Your task to perform on an android device: turn on the 24-hour format for clock Image 0: 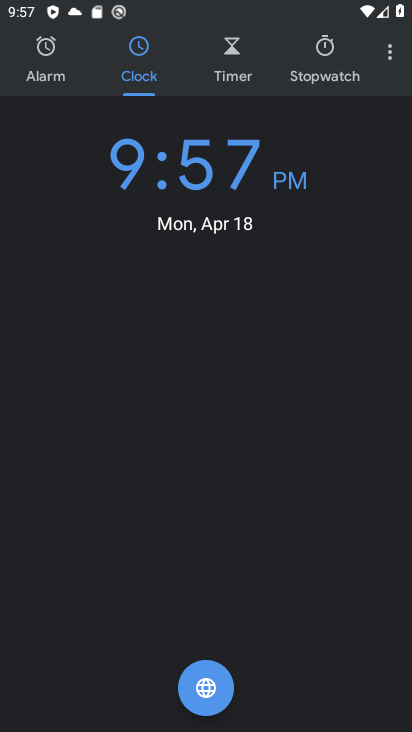
Step 0: click (390, 63)
Your task to perform on an android device: turn on the 24-hour format for clock Image 1: 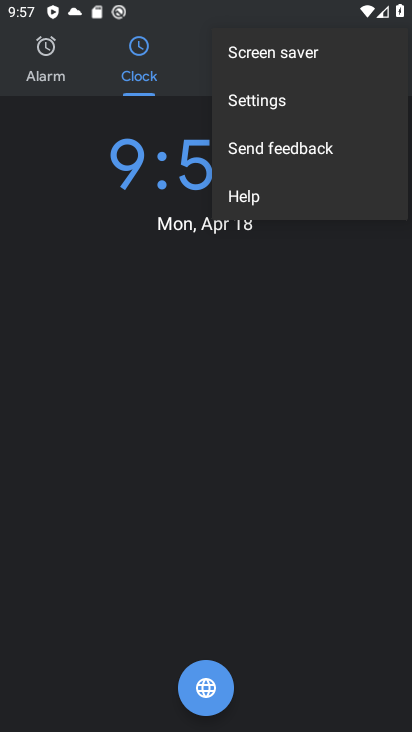
Step 1: click (265, 112)
Your task to perform on an android device: turn on the 24-hour format for clock Image 2: 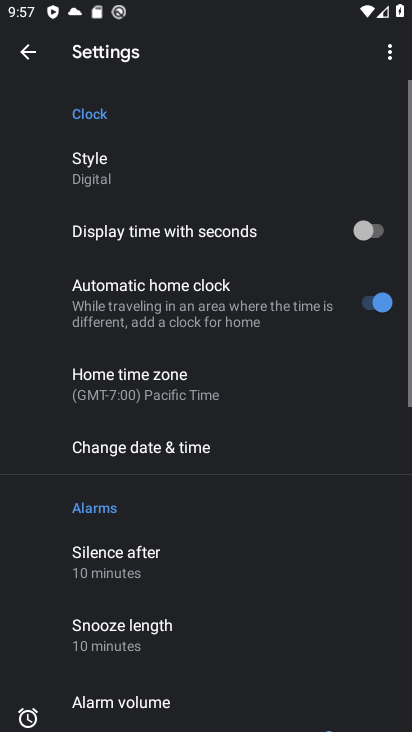
Step 2: click (174, 460)
Your task to perform on an android device: turn on the 24-hour format for clock Image 3: 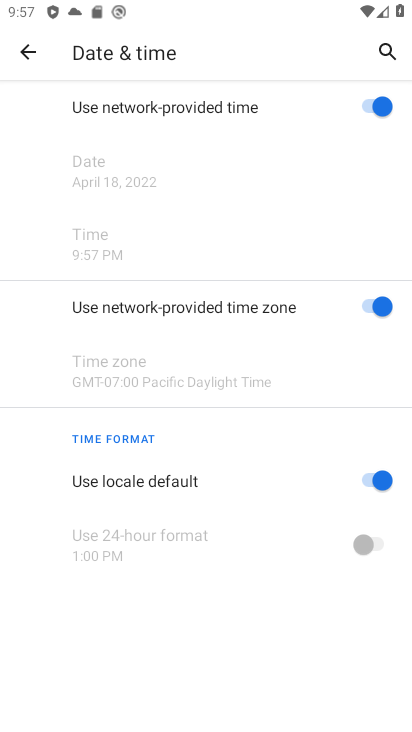
Step 3: click (376, 486)
Your task to perform on an android device: turn on the 24-hour format for clock Image 4: 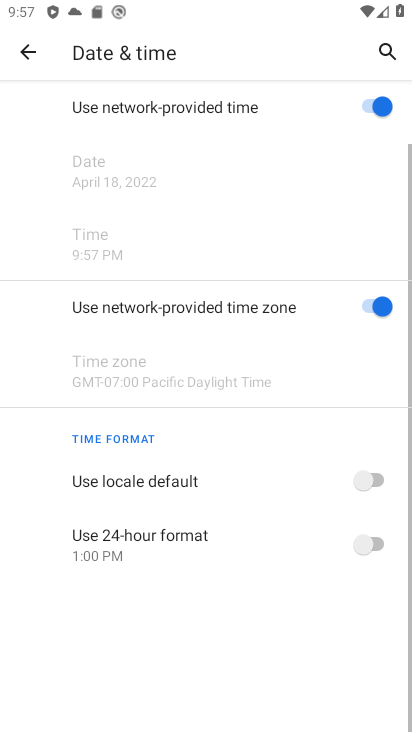
Step 4: click (360, 549)
Your task to perform on an android device: turn on the 24-hour format for clock Image 5: 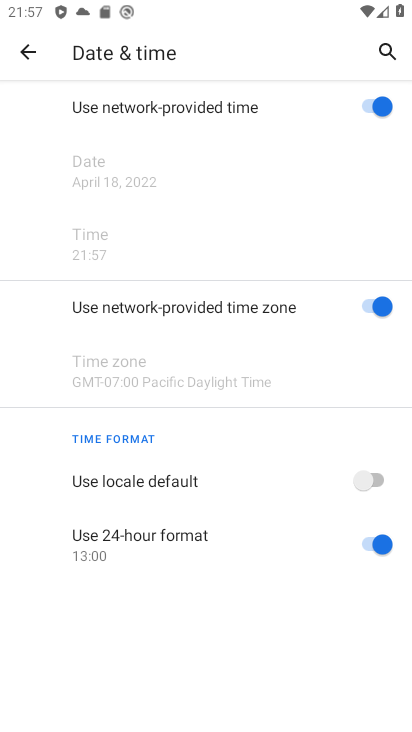
Step 5: task complete